Your task to perform on an android device: open app "Spotify" (install if not already installed) and enter user name: "infallible@icloud.com" and password: "implored" Image 0: 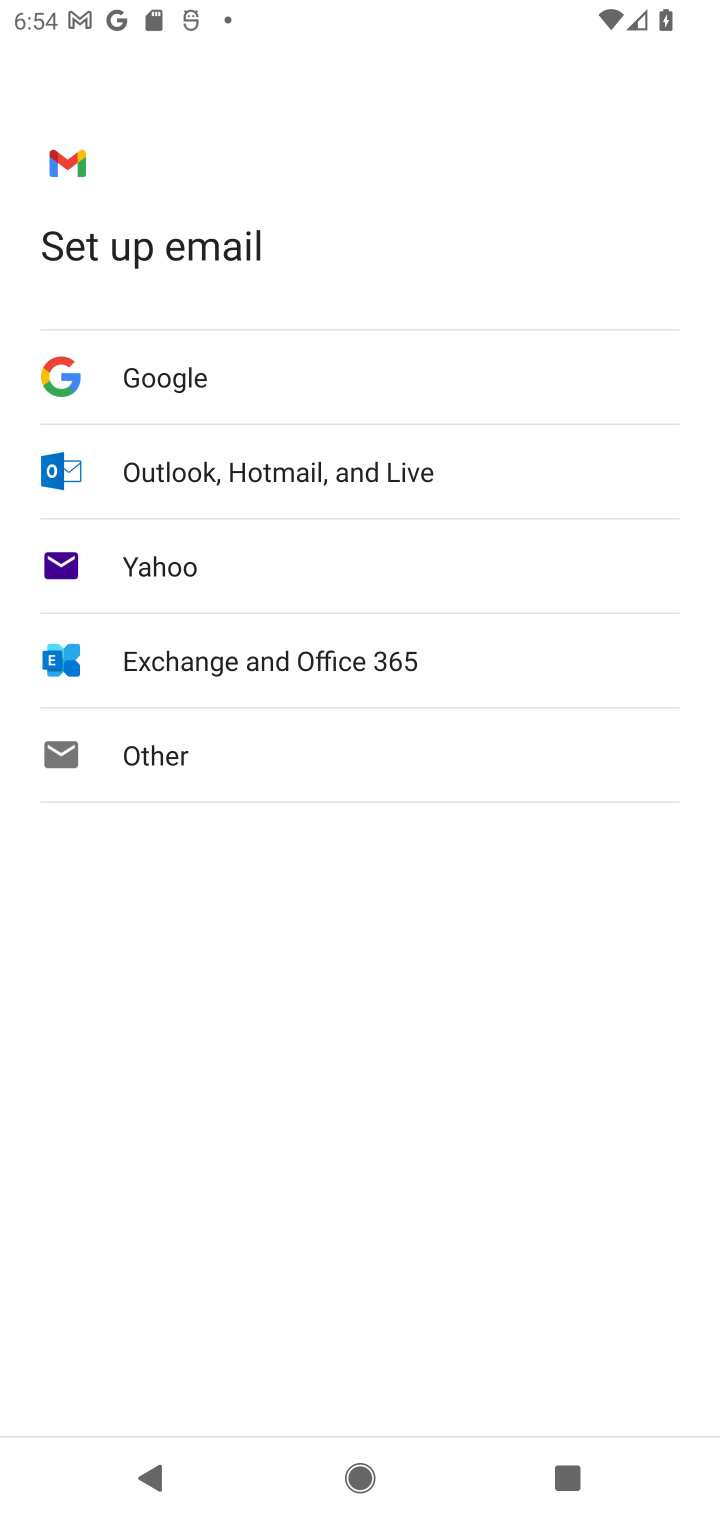
Step 0: press home button
Your task to perform on an android device: open app "Spotify" (install if not already installed) and enter user name: "infallible@icloud.com" and password: "implored" Image 1: 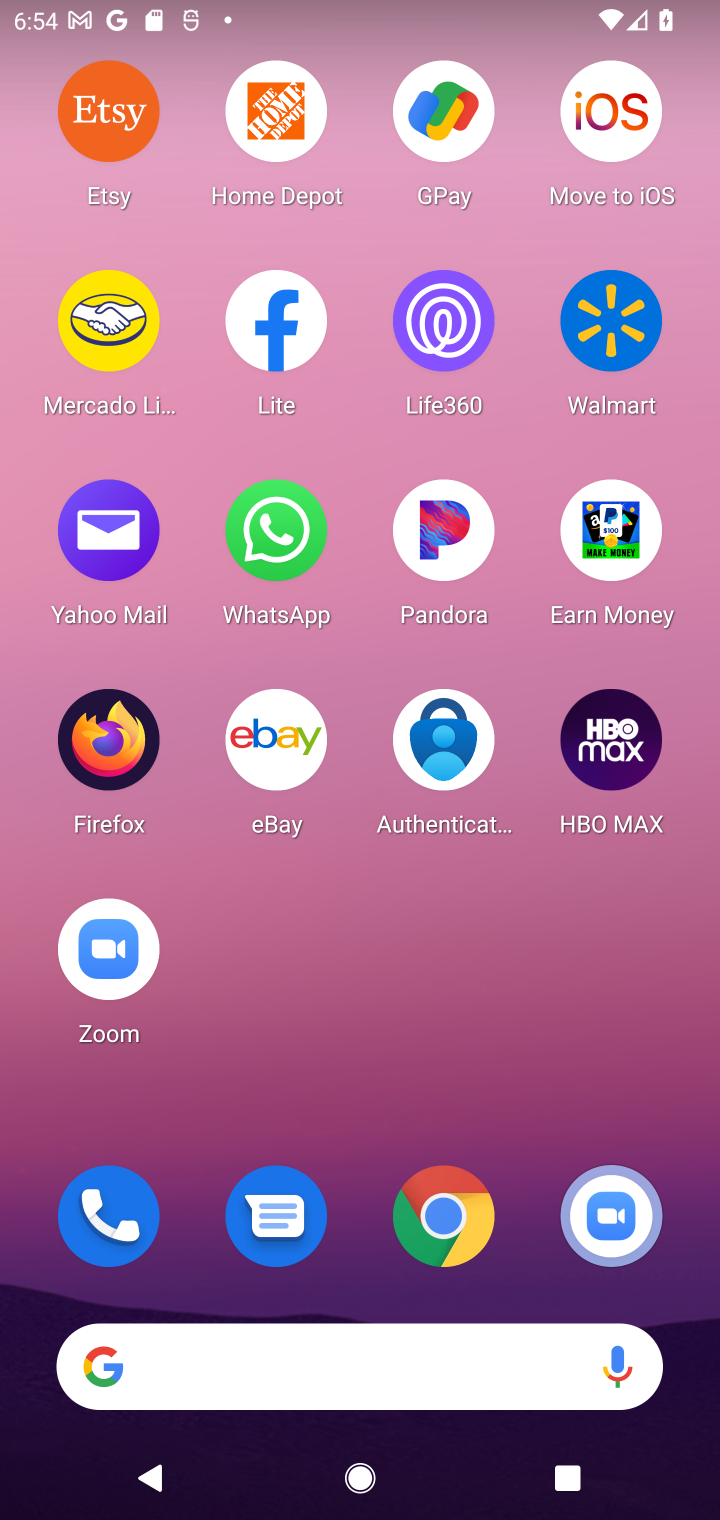
Step 1: drag from (511, 1139) to (521, 384)
Your task to perform on an android device: open app "Spotify" (install if not already installed) and enter user name: "infallible@icloud.com" and password: "implored" Image 2: 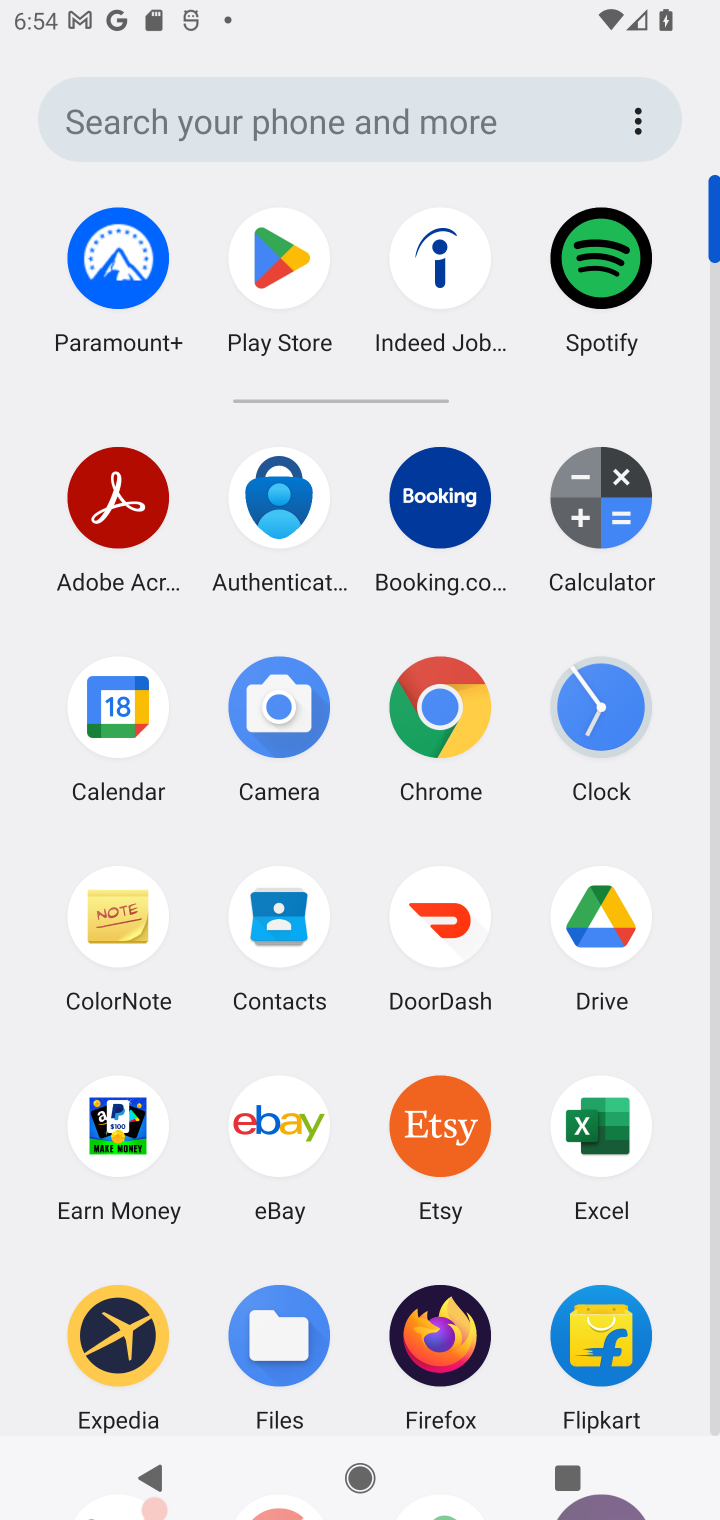
Step 2: drag from (523, 1345) to (491, 549)
Your task to perform on an android device: open app "Spotify" (install if not already installed) and enter user name: "infallible@icloud.com" and password: "implored" Image 3: 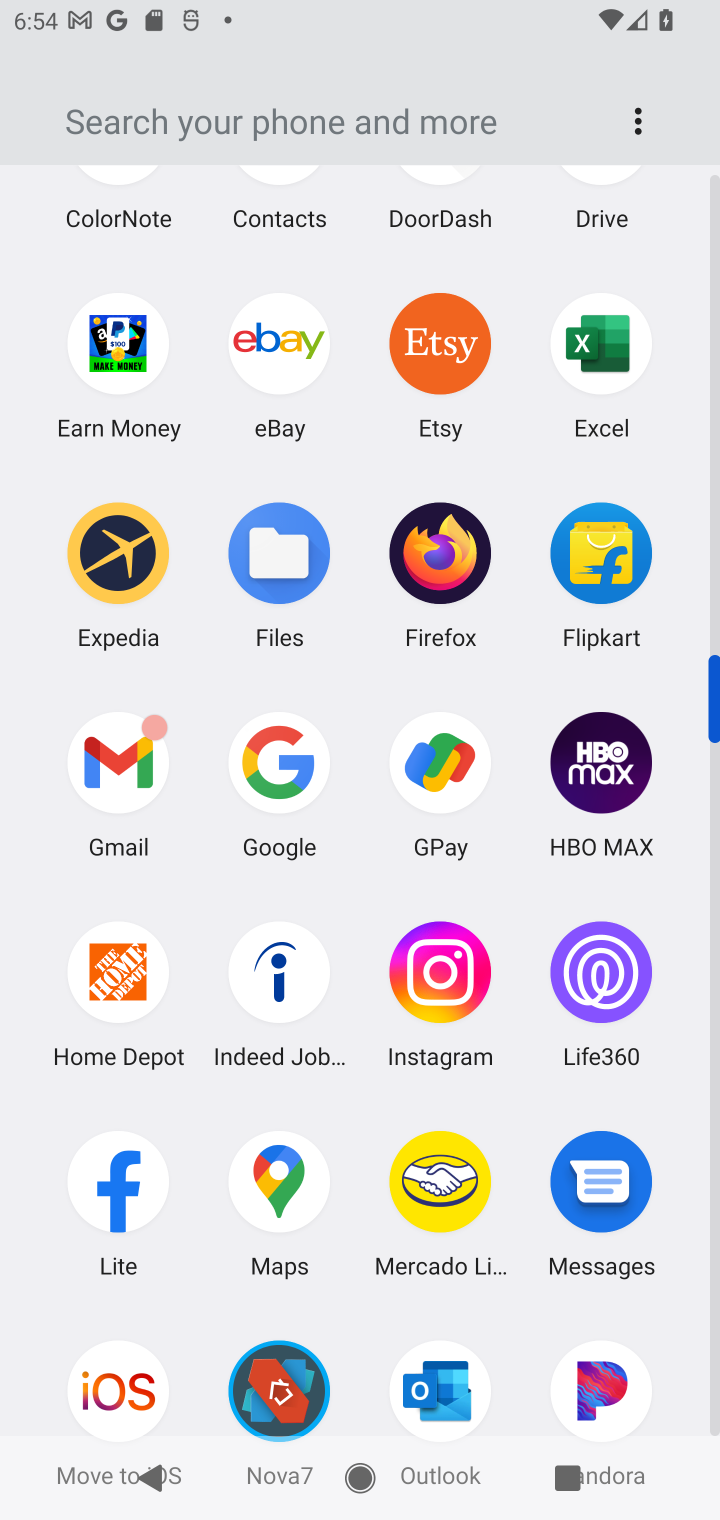
Step 3: drag from (525, 1352) to (494, 606)
Your task to perform on an android device: open app "Spotify" (install if not already installed) and enter user name: "infallible@icloud.com" and password: "implored" Image 4: 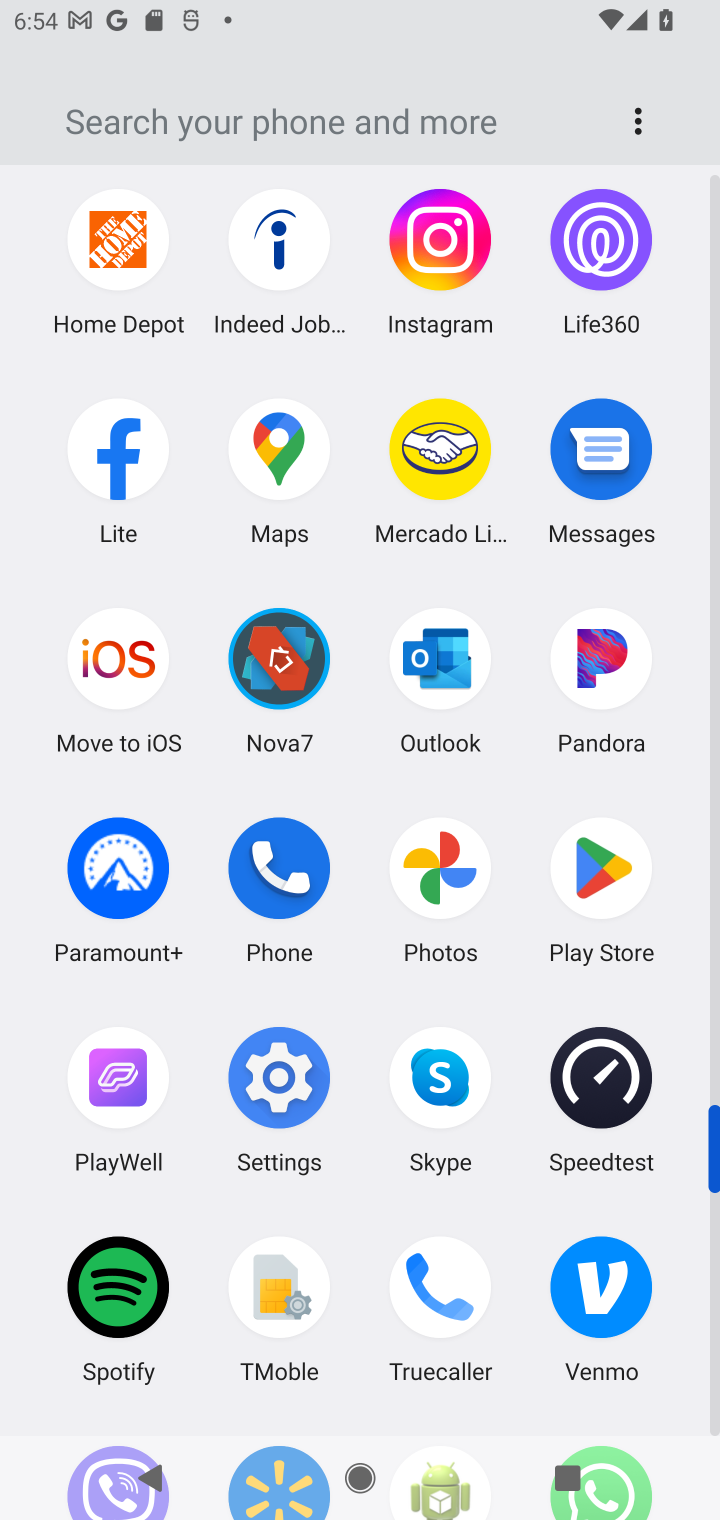
Step 4: click (115, 1289)
Your task to perform on an android device: open app "Spotify" (install if not already installed) and enter user name: "infallible@icloud.com" and password: "implored" Image 5: 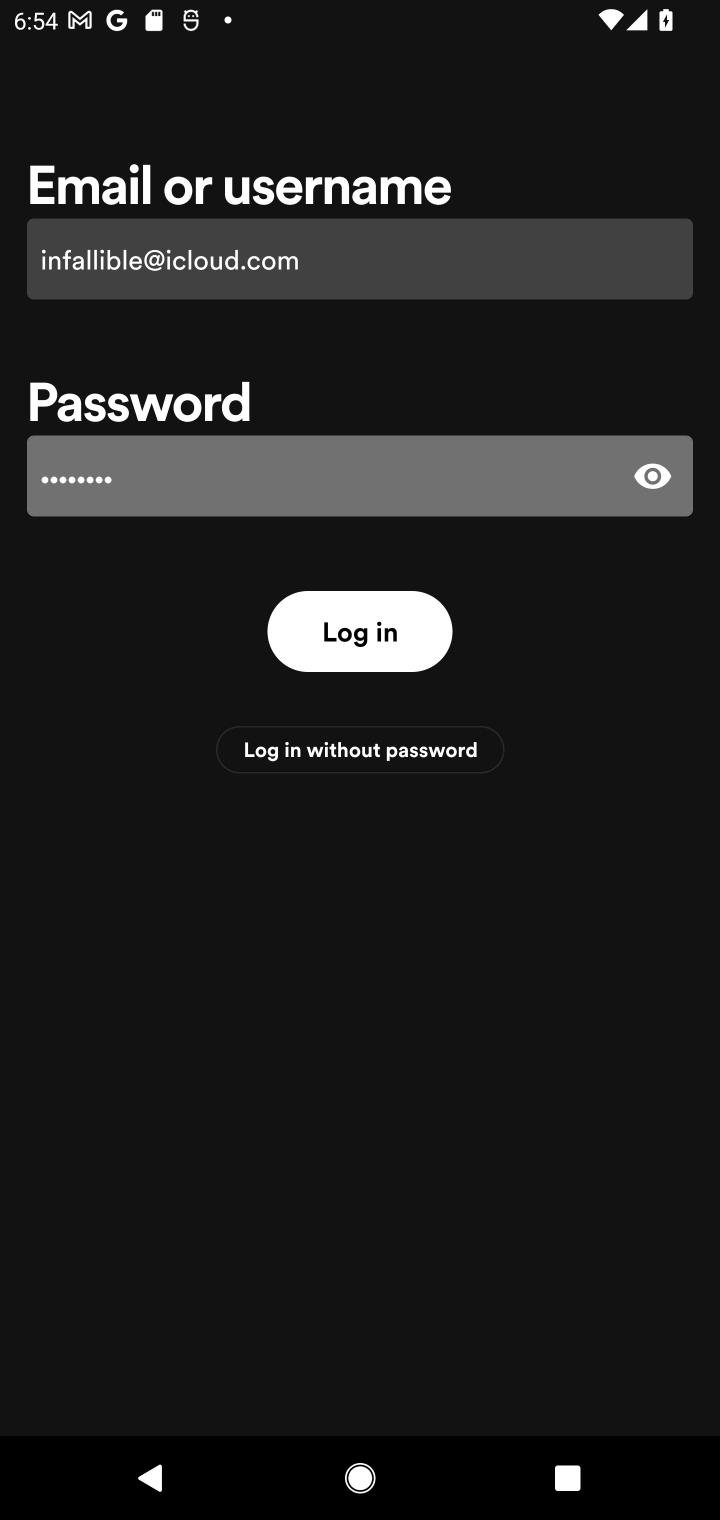
Step 5: click (651, 482)
Your task to perform on an android device: open app "Spotify" (install if not already installed) and enter user name: "infallible@icloud.com" and password: "implored" Image 6: 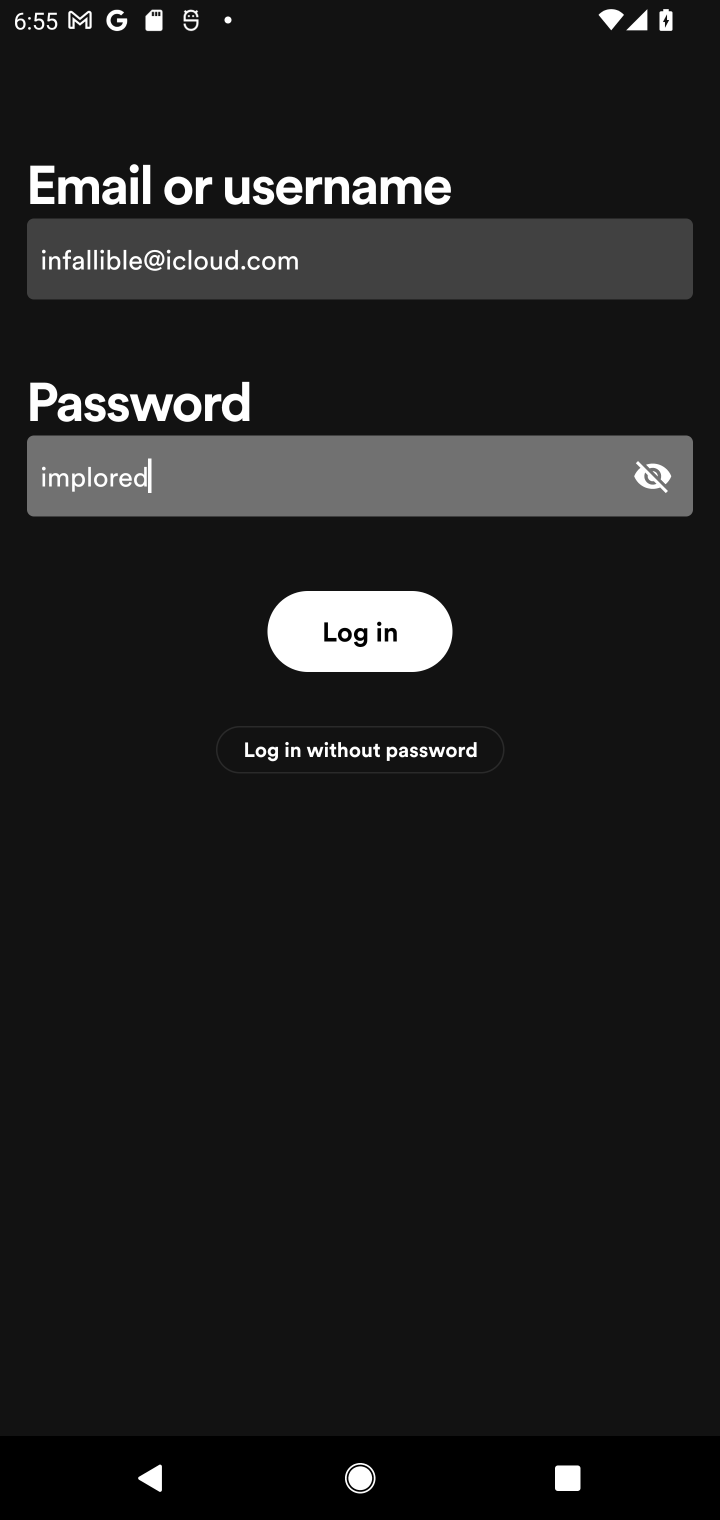
Step 6: task complete